Your task to perform on an android device: What's on my calendar tomorrow? Image 0: 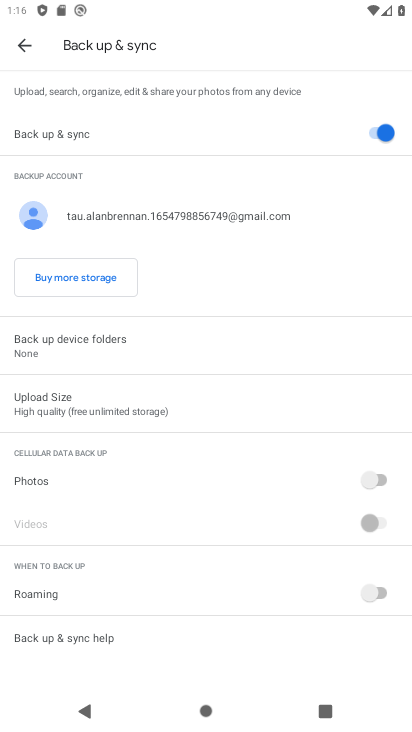
Step 0: press home button
Your task to perform on an android device: What's on my calendar tomorrow? Image 1: 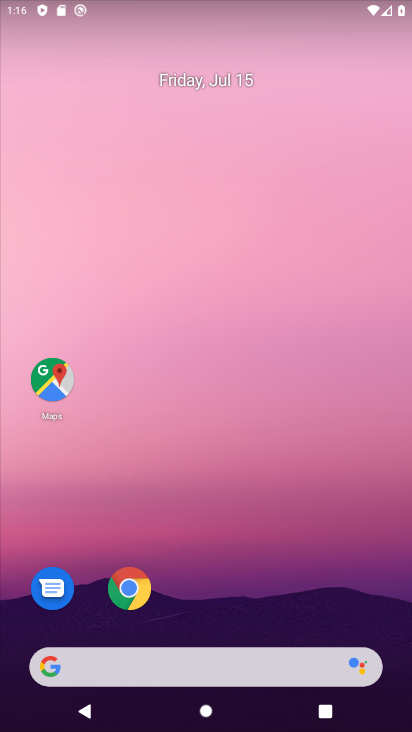
Step 1: drag from (223, 602) to (256, 86)
Your task to perform on an android device: What's on my calendar tomorrow? Image 2: 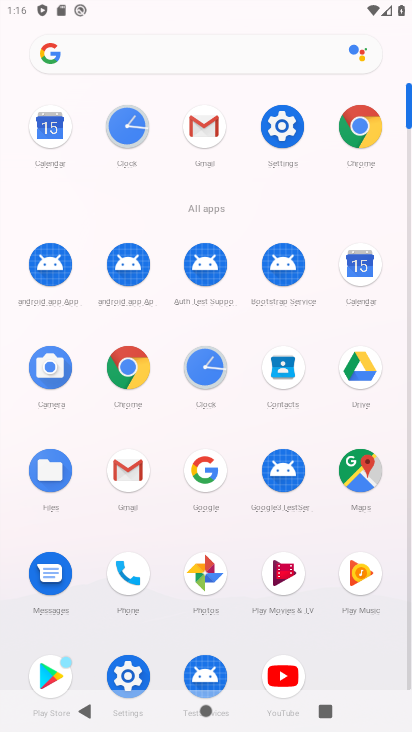
Step 2: click (358, 279)
Your task to perform on an android device: What's on my calendar tomorrow? Image 3: 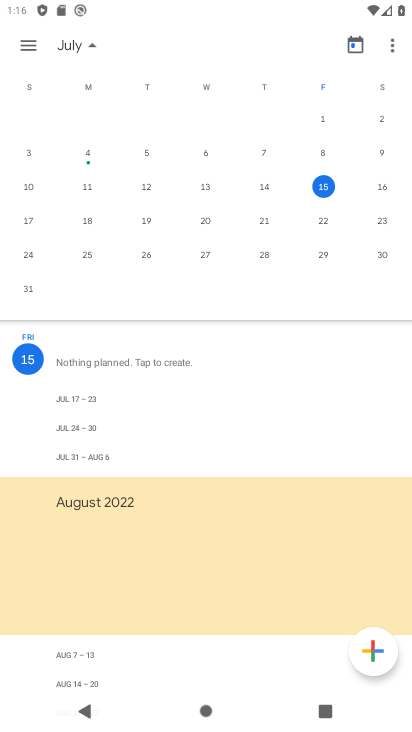
Step 3: click (375, 189)
Your task to perform on an android device: What's on my calendar tomorrow? Image 4: 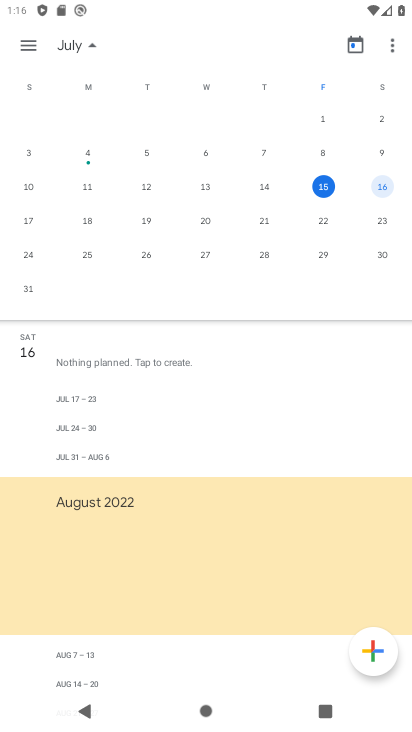
Step 4: task complete